Your task to perform on an android device: Open calendar and show me the fourth week of next month Image 0: 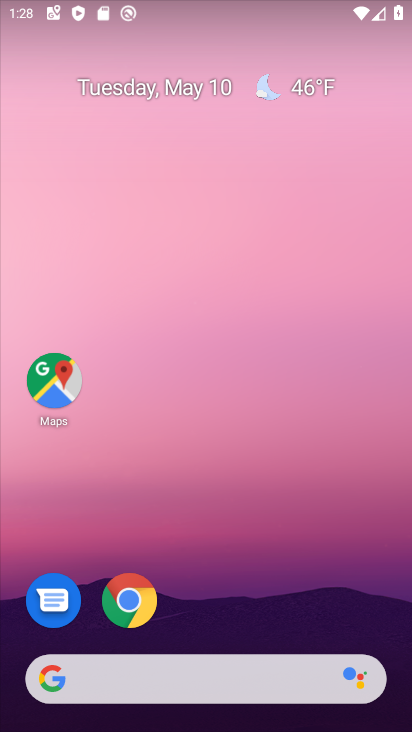
Step 0: press home button
Your task to perform on an android device: Open calendar and show me the fourth week of next month Image 1: 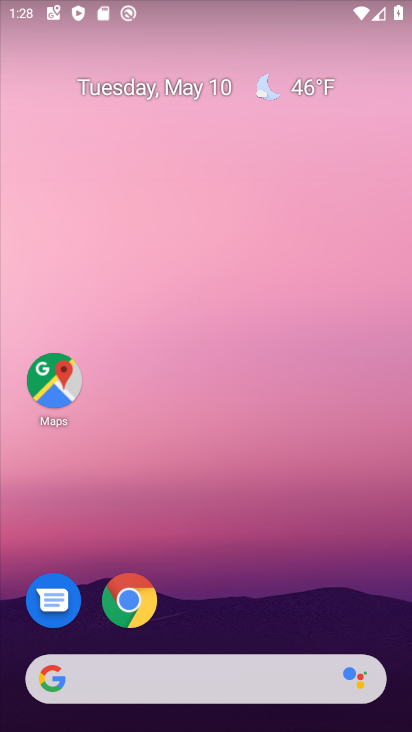
Step 1: drag from (100, 680) to (295, 209)
Your task to perform on an android device: Open calendar and show me the fourth week of next month Image 2: 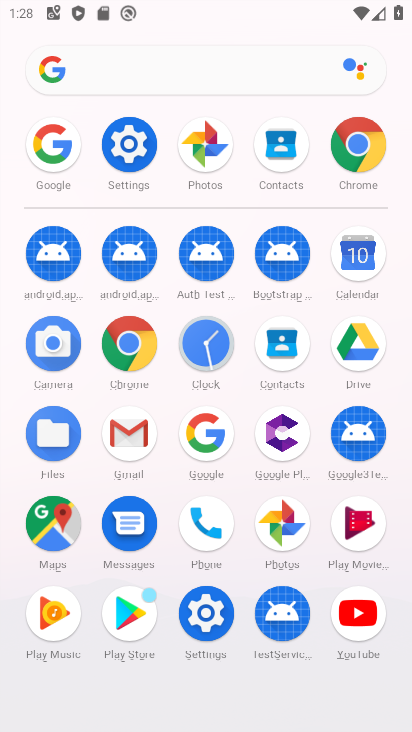
Step 2: click (362, 256)
Your task to perform on an android device: Open calendar and show me the fourth week of next month Image 3: 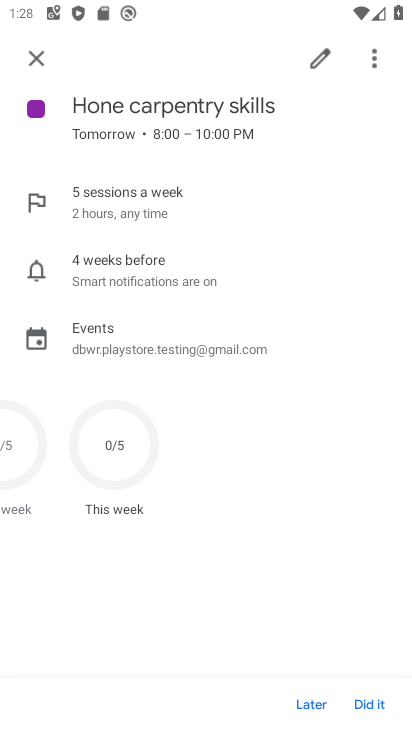
Step 3: click (33, 60)
Your task to perform on an android device: Open calendar and show me the fourth week of next month Image 4: 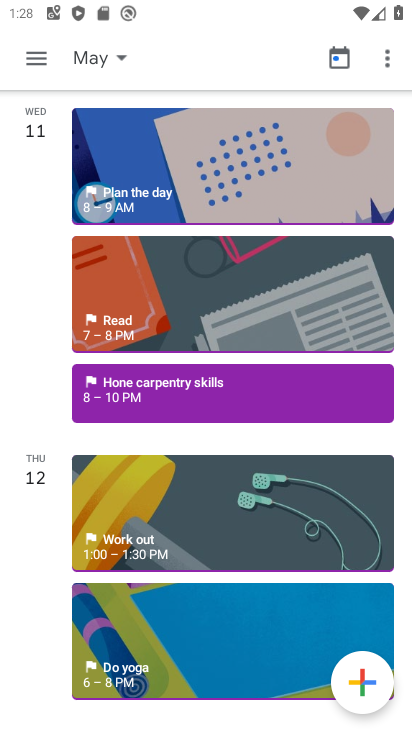
Step 4: click (85, 56)
Your task to perform on an android device: Open calendar and show me the fourth week of next month Image 5: 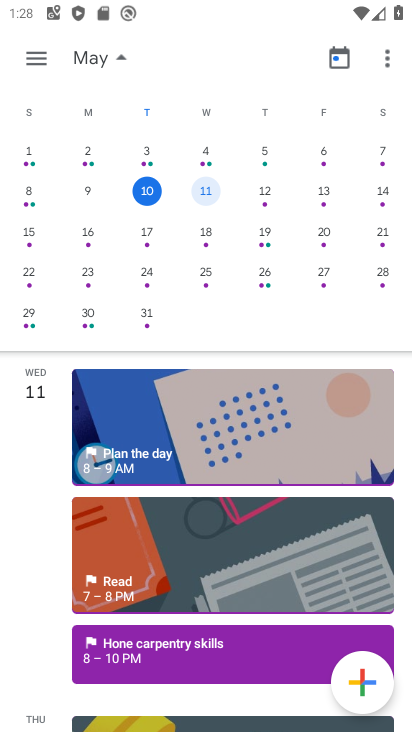
Step 5: drag from (372, 248) to (42, 235)
Your task to perform on an android device: Open calendar and show me the fourth week of next month Image 6: 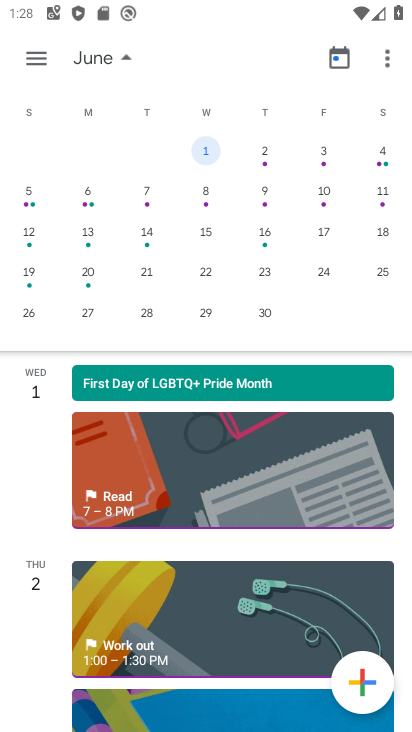
Step 6: click (27, 267)
Your task to perform on an android device: Open calendar and show me the fourth week of next month Image 7: 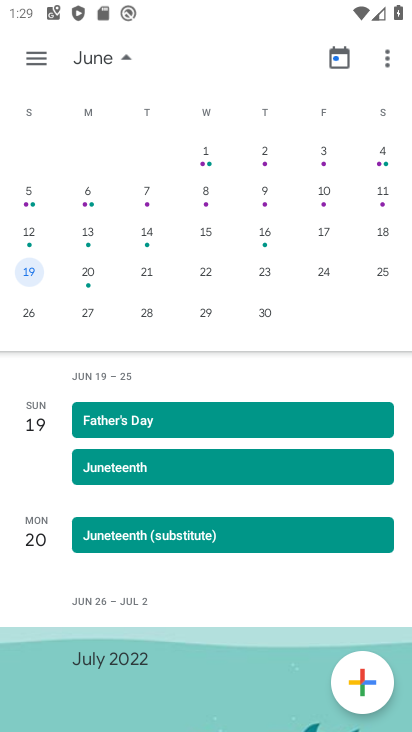
Step 7: click (39, 59)
Your task to perform on an android device: Open calendar and show me the fourth week of next month Image 8: 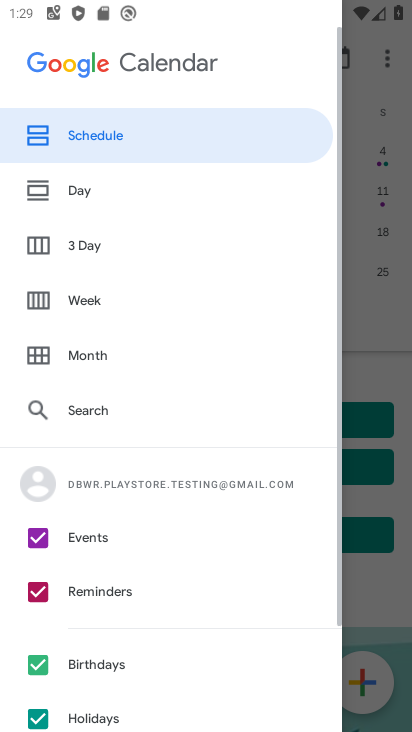
Step 8: click (88, 307)
Your task to perform on an android device: Open calendar and show me the fourth week of next month Image 9: 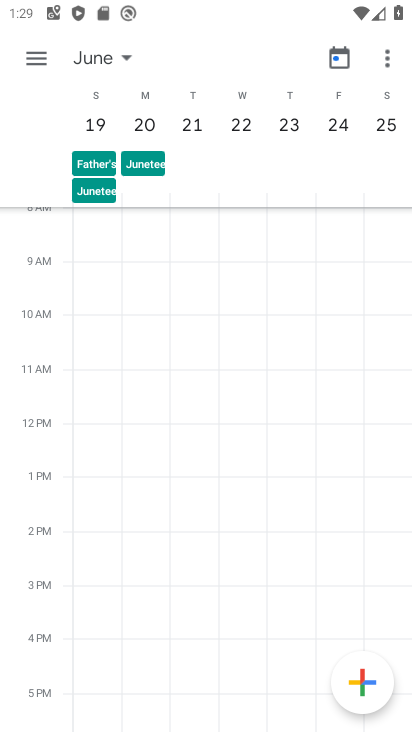
Step 9: task complete